Your task to perform on an android device: turn on airplane mode Image 0: 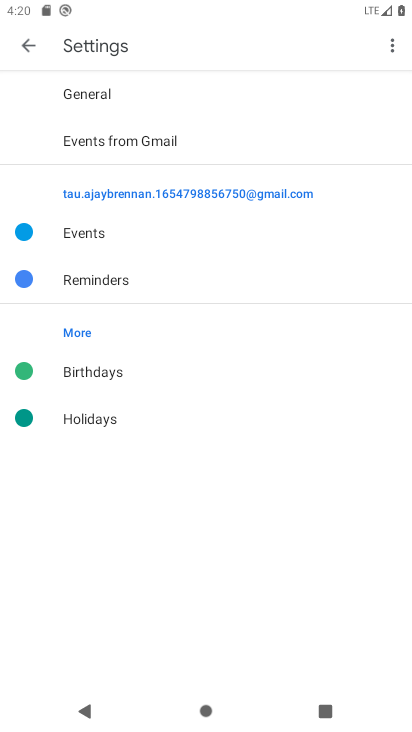
Step 0: press home button
Your task to perform on an android device: turn on airplane mode Image 1: 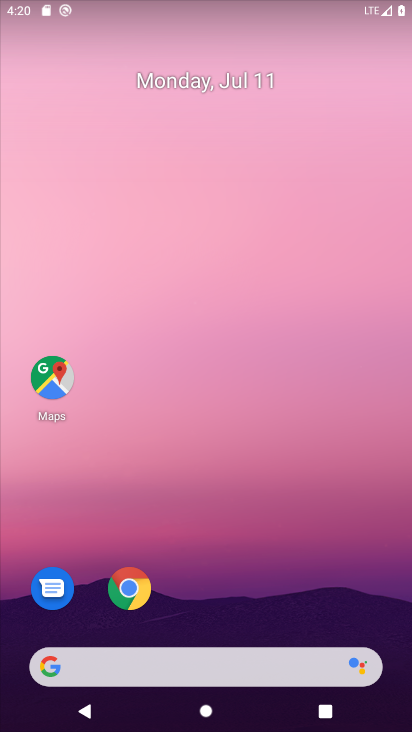
Step 1: drag from (371, 598) to (375, 207)
Your task to perform on an android device: turn on airplane mode Image 2: 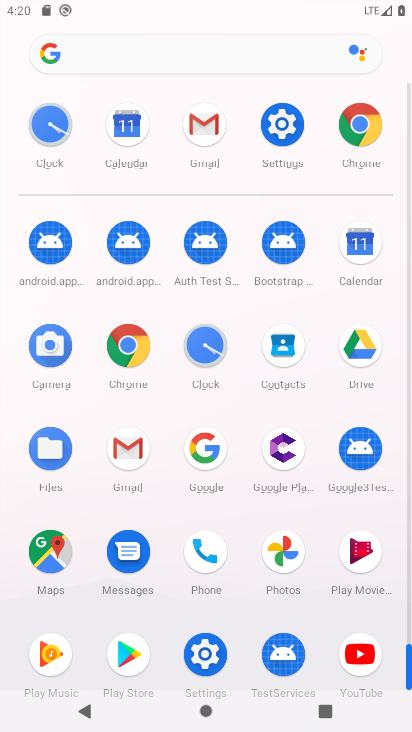
Step 2: click (287, 124)
Your task to perform on an android device: turn on airplane mode Image 3: 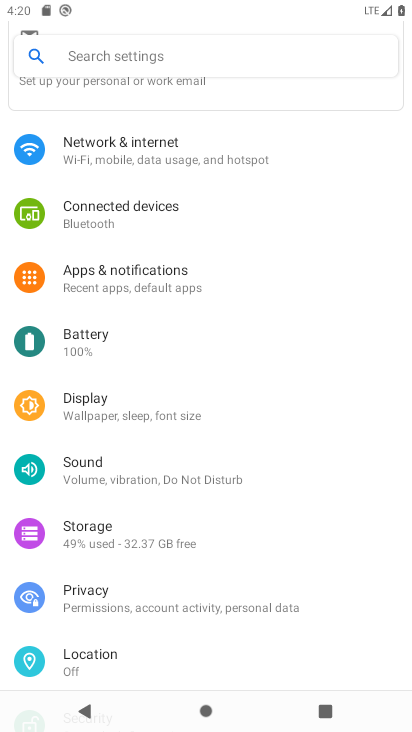
Step 3: click (277, 151)
Your task to perform on an android device: turn on airplane mode Image 4: 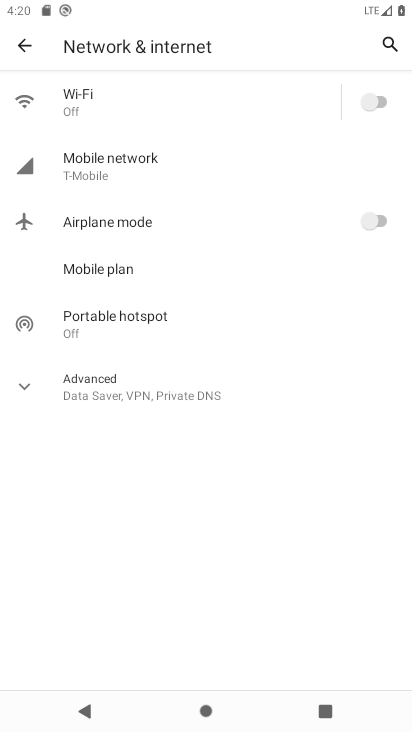
Step 4: click (366, 219)
Your task to perform on an android device: turn on airplane mode Image 5: 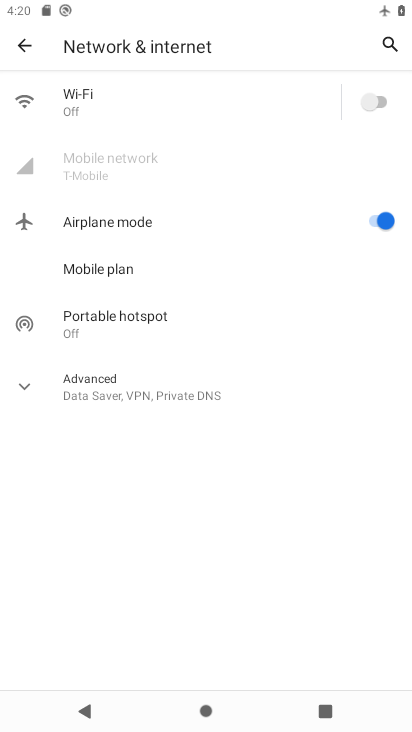
Step 5: task complete